Your task to perform on an android device: Open the stopwatch Image 0: 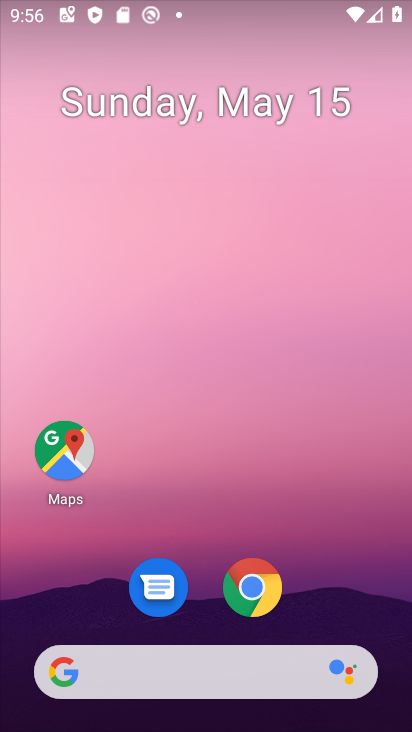
Step 0: drag from (401, 619) to (301, 40)
Your task to perform on an android device: Open the stopwatch Image 1: 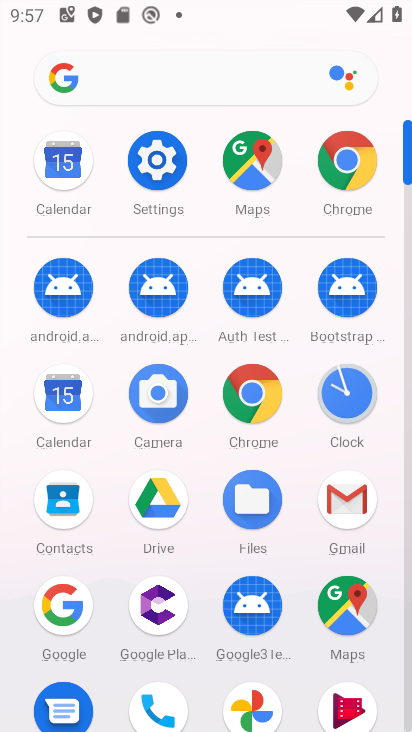
Step 1: click (346, 399)
Your task to perform on an android device: Open the stopwatch Image 2: 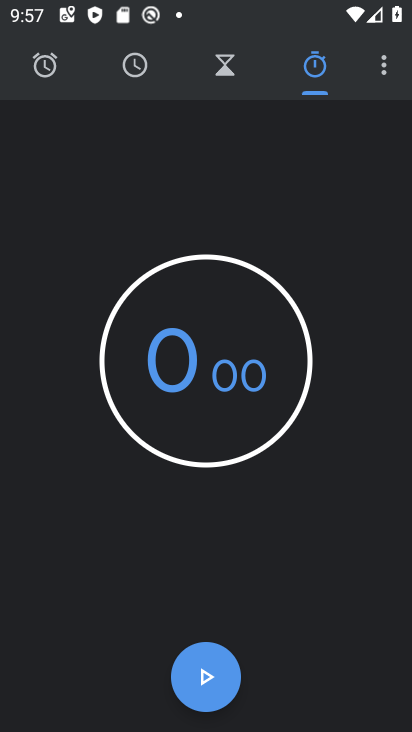
Step 2: task complete